Your task to perform on an android device: Open the calendar app, open the side menu, and click the "Day" option Image 0: 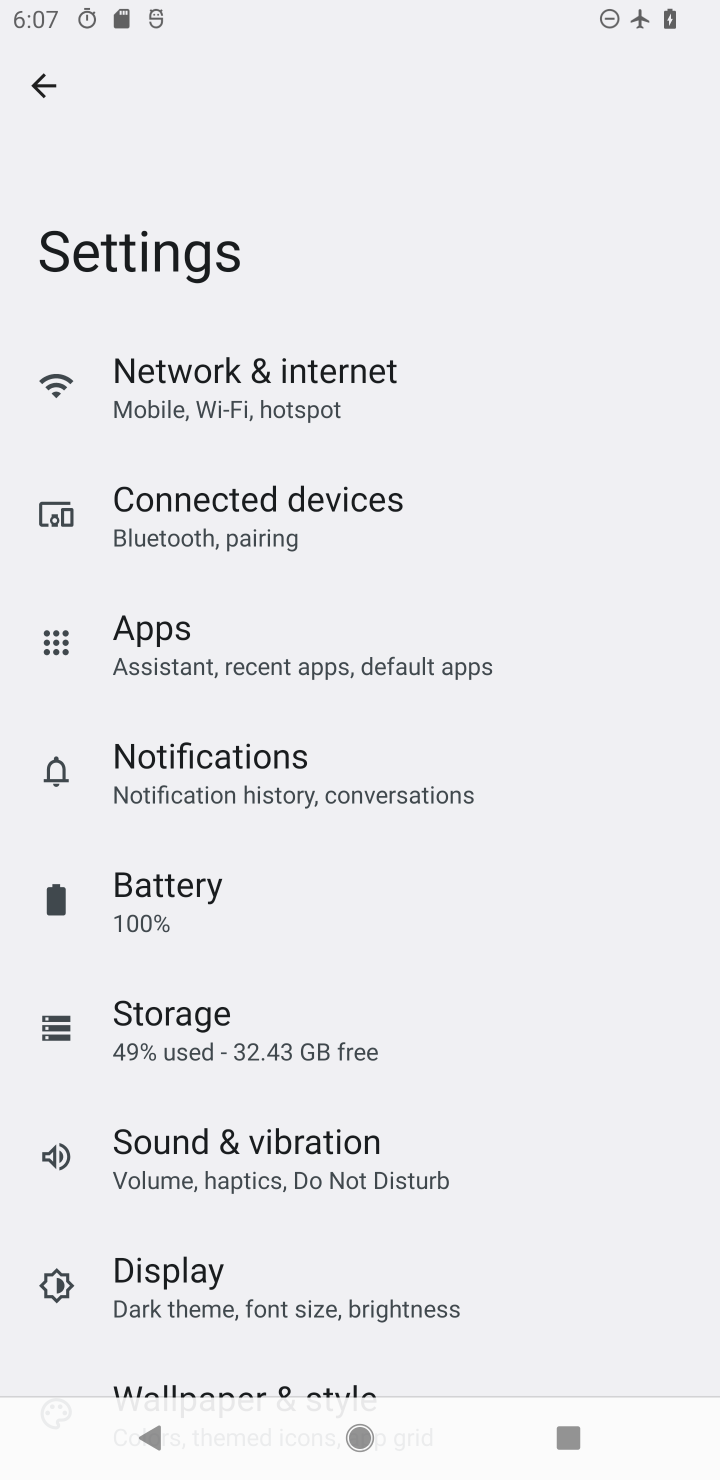
Step 0: press home button
Your task to perform on an android device: Open the calendar app, open the side menu, and click the "Day" option Image 1: 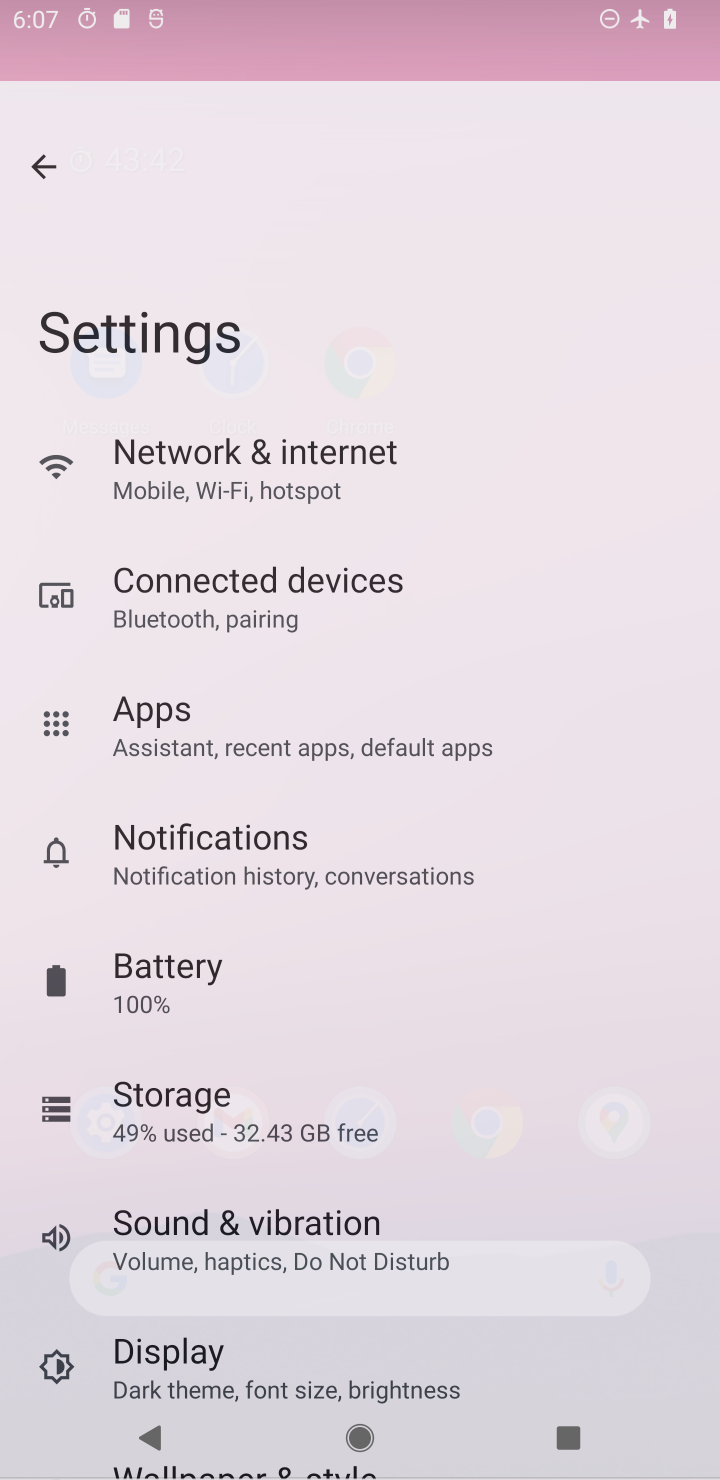
Step 1: drag from (320, 1275) to (531, 233)
Your task to perform on an android device: Open the calendar app, open the side menu, and click the "Day" option Image 2: 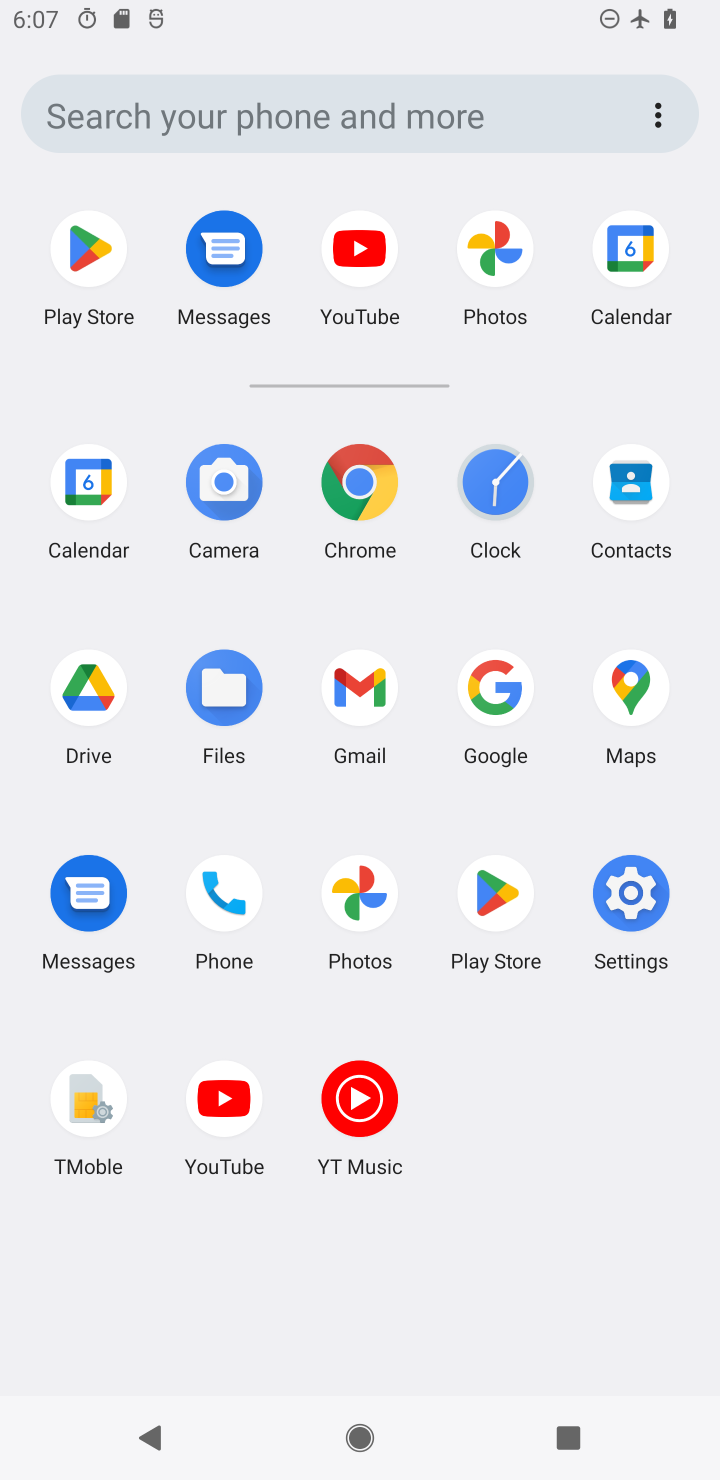
Step 2: click (627, 226)
Your task to perform on an android device: Open the calendar app, open the side menu, and click the "Day" option Image 3: 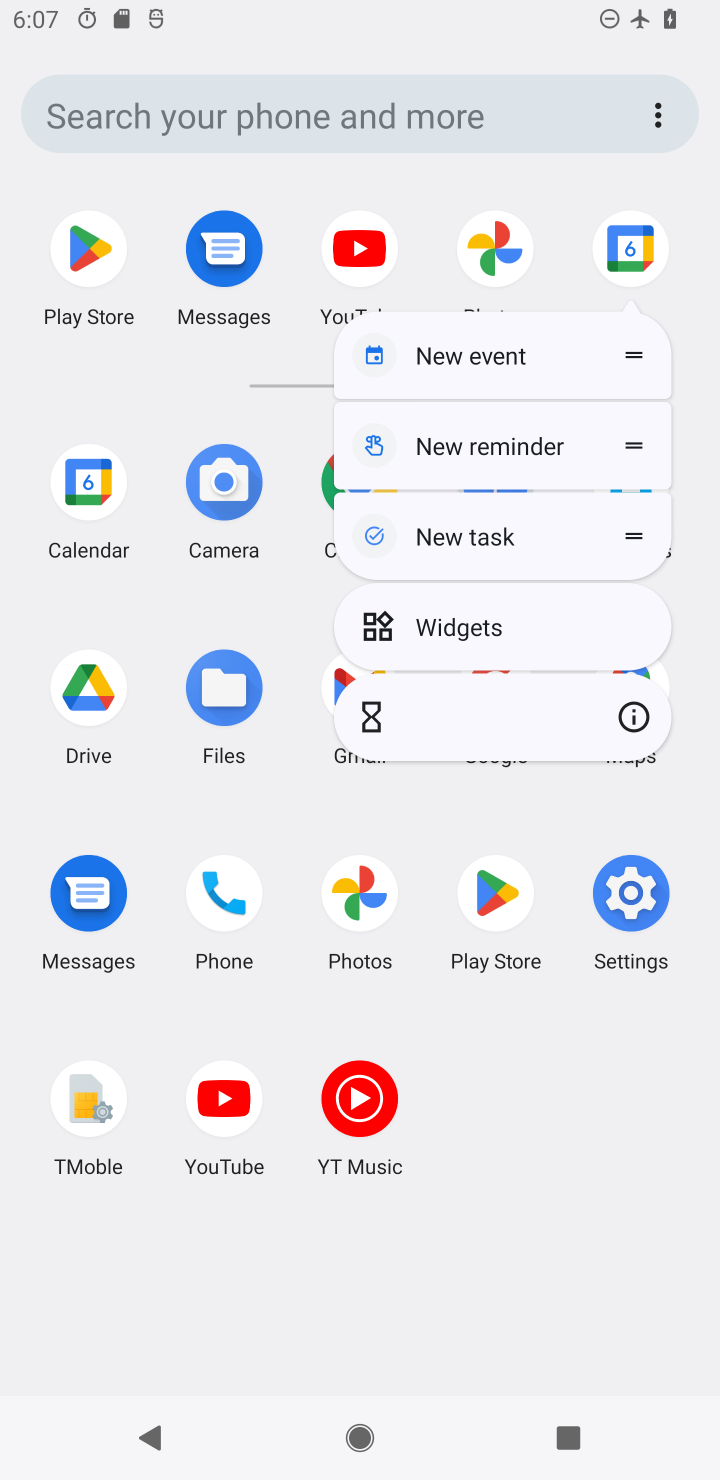
Step 3: click (637, 702)
Your task to perform on an android device: Open the calendar app, open the side menu, and click the "Day" option Image 4: 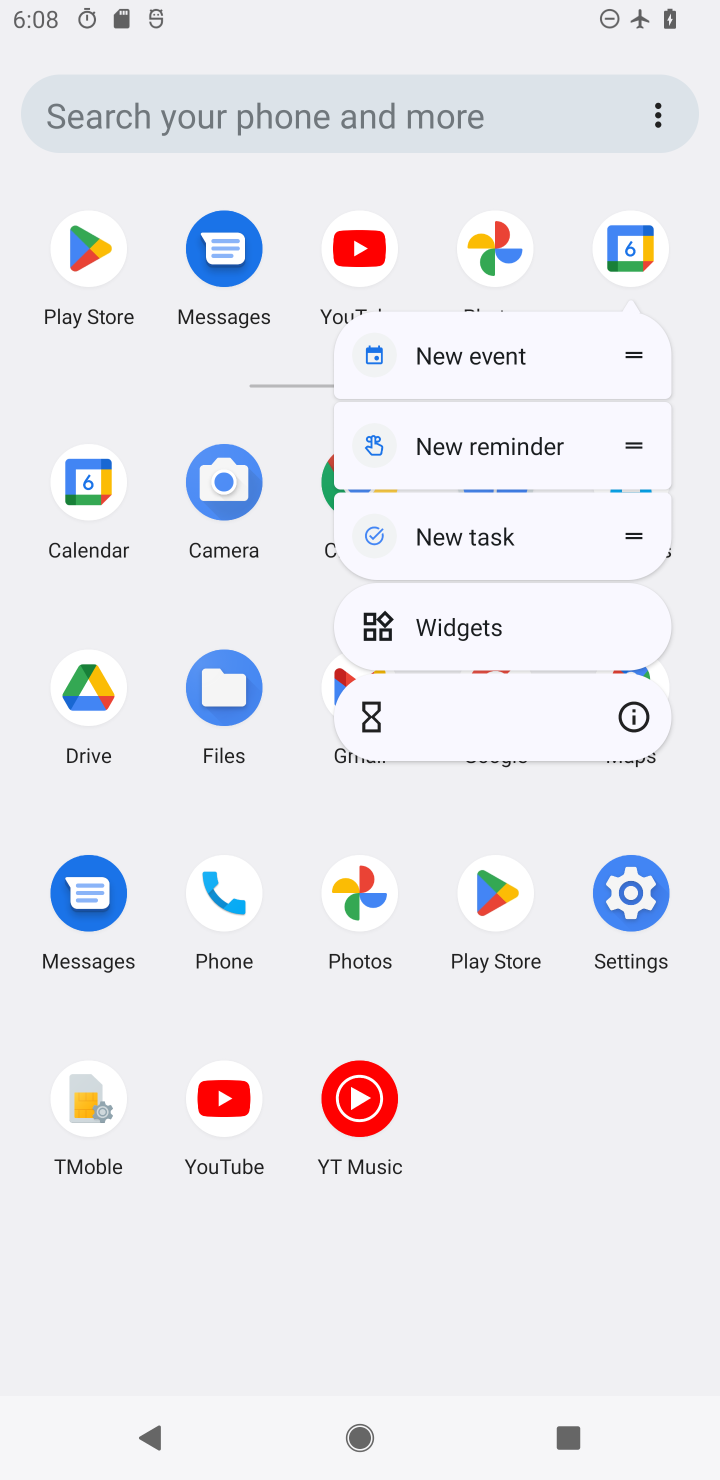
Step 4: click (616, 733)
Your task to perform on an android device: Open the calendar app, open the side menu, and click the "Day" option Image 5: 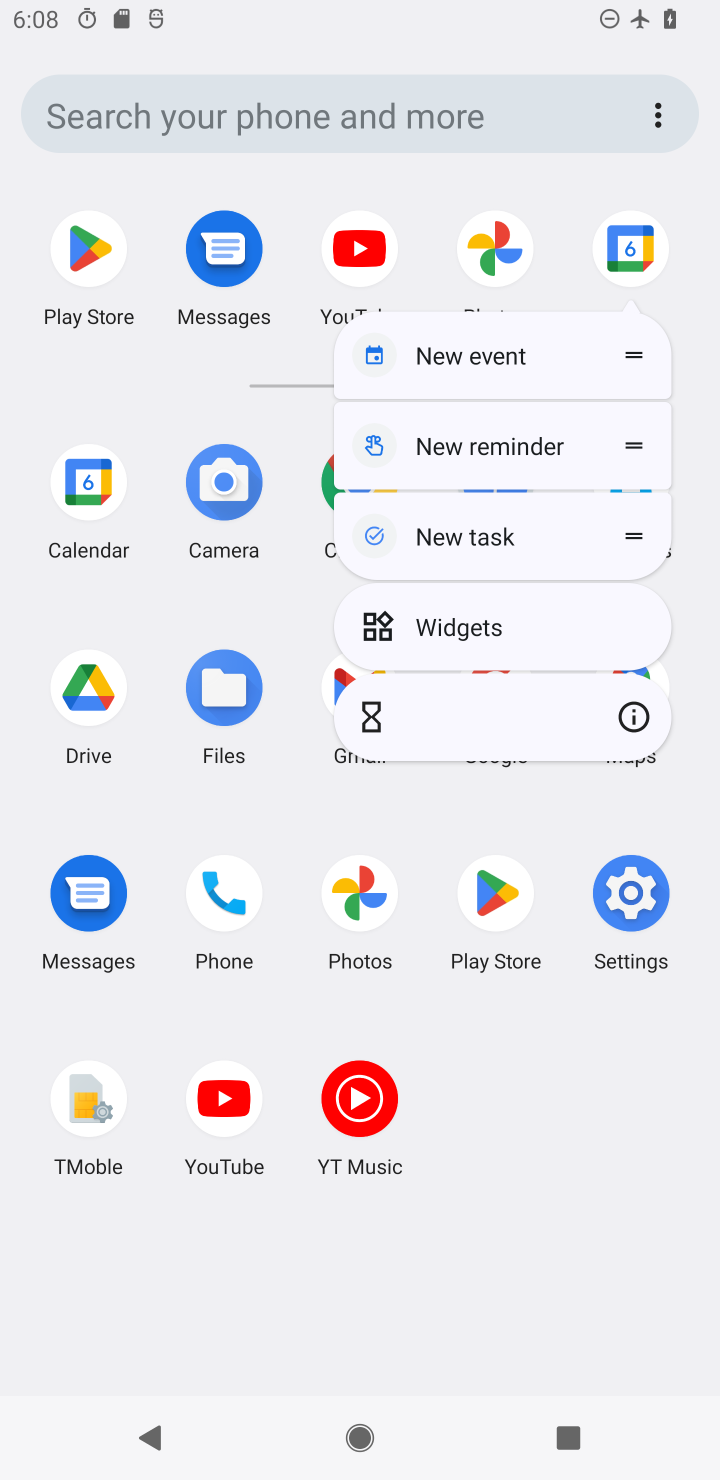
Step 5: click (635, 706)
Your task to perform on an android device: Open the calendar app, open the side menu, and click the "Day" option Image 6: 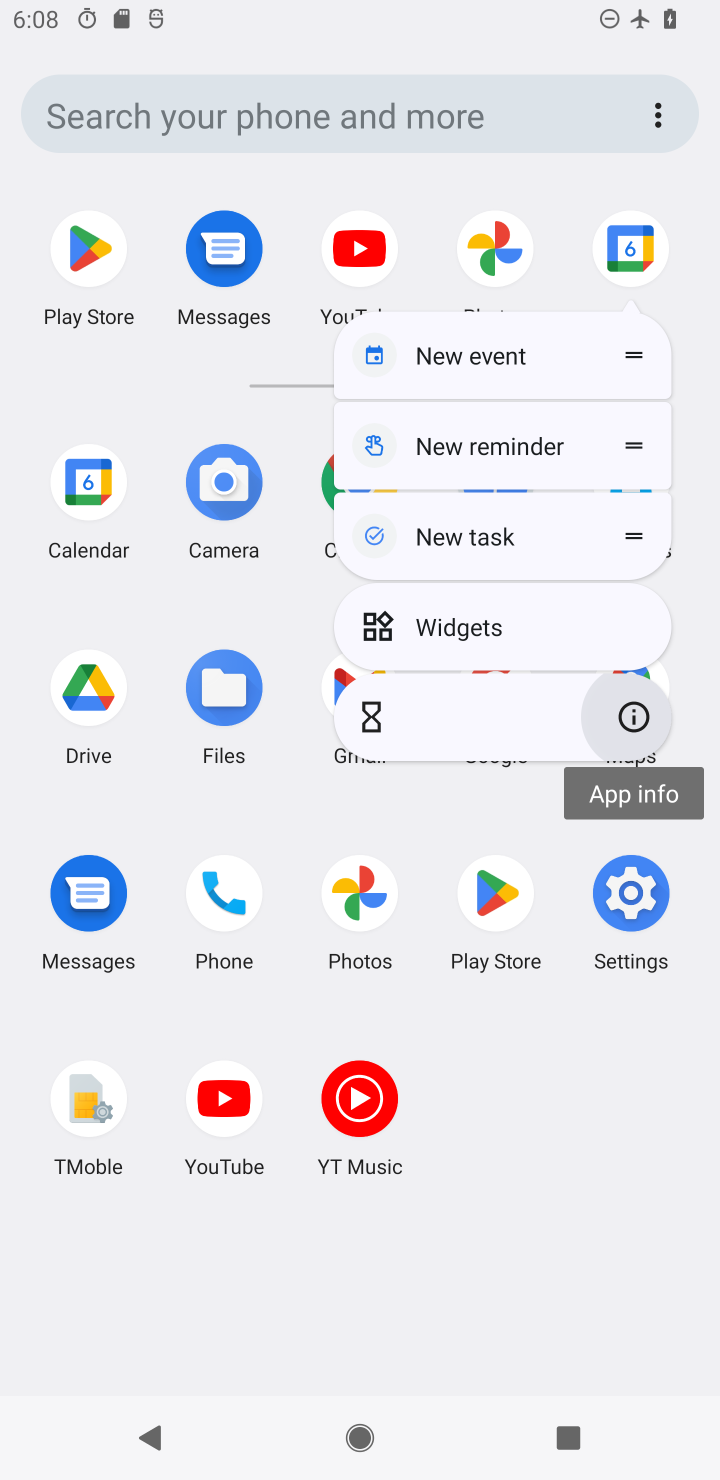
Step 6: click (635, 706)
Your task to perform on an android device: Open the calendar app, open the side menu, and click the "Day" option Image 7: 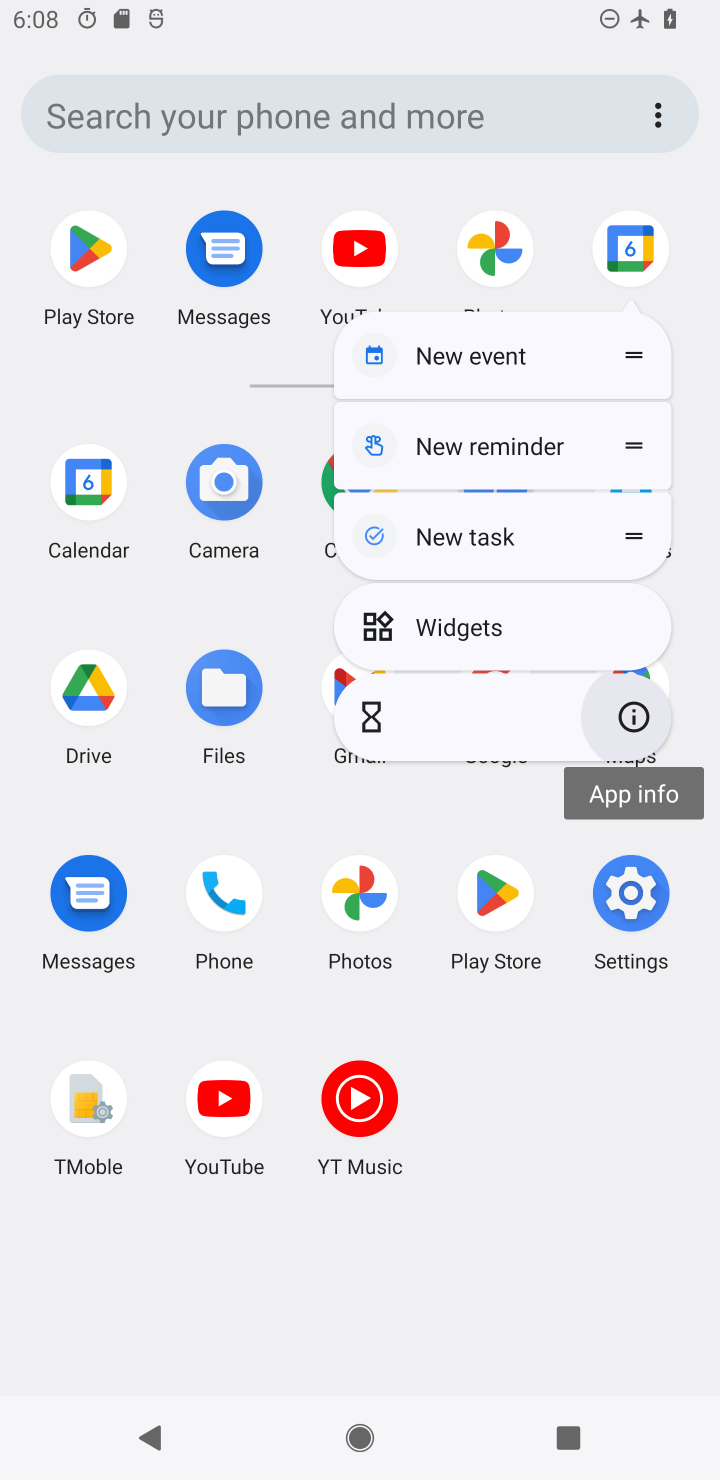
Step 7: click (641, 714)
Your task to perform on an android device: Open the calendar app, open the side menu, and click the "Day" option Image 8: 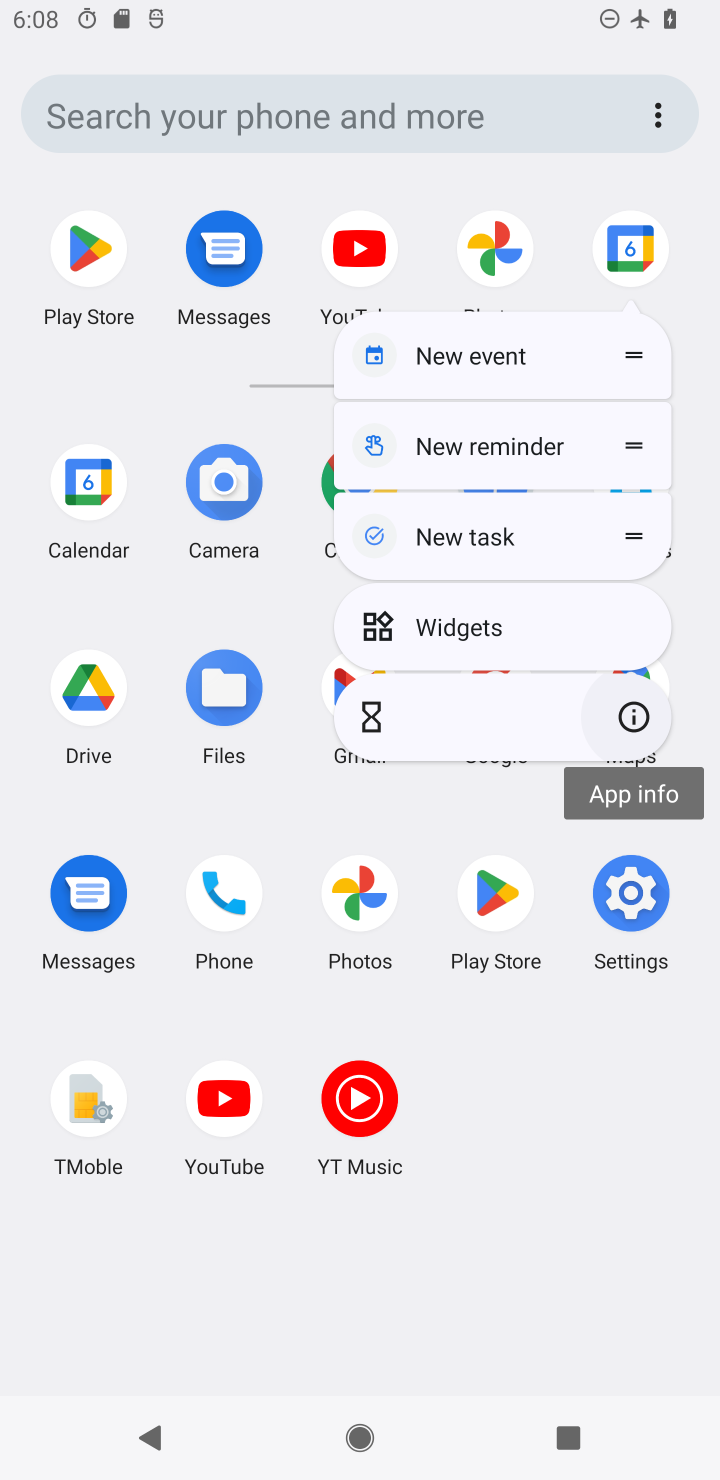
Step 8: click (626, 243)
Your task to perform on an android device: Open the calendar app, open the side menu, and click the "Day" option Image 9: 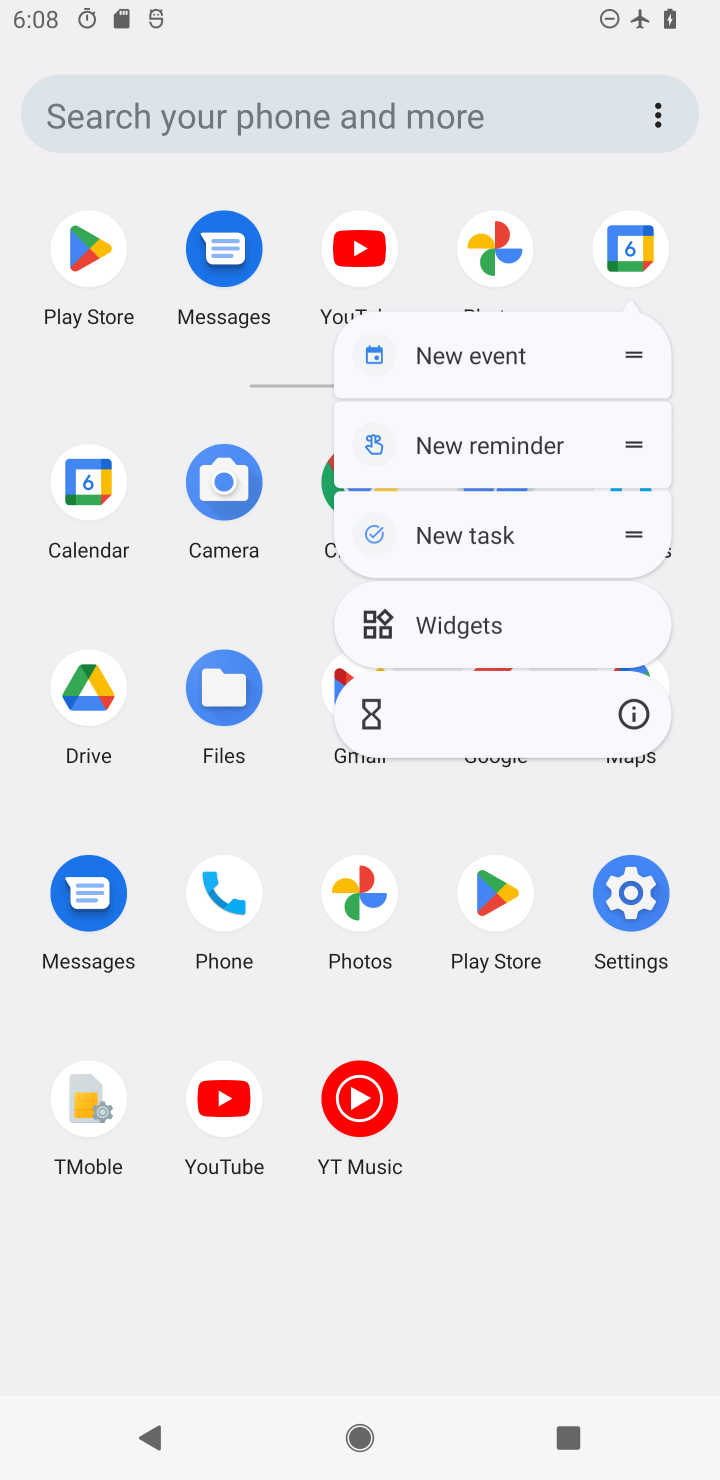
Step 9: click (630, 231)
Your task to perform on an android device: Open the calendar app, open the side menu, and click the "Day" option Image 10: 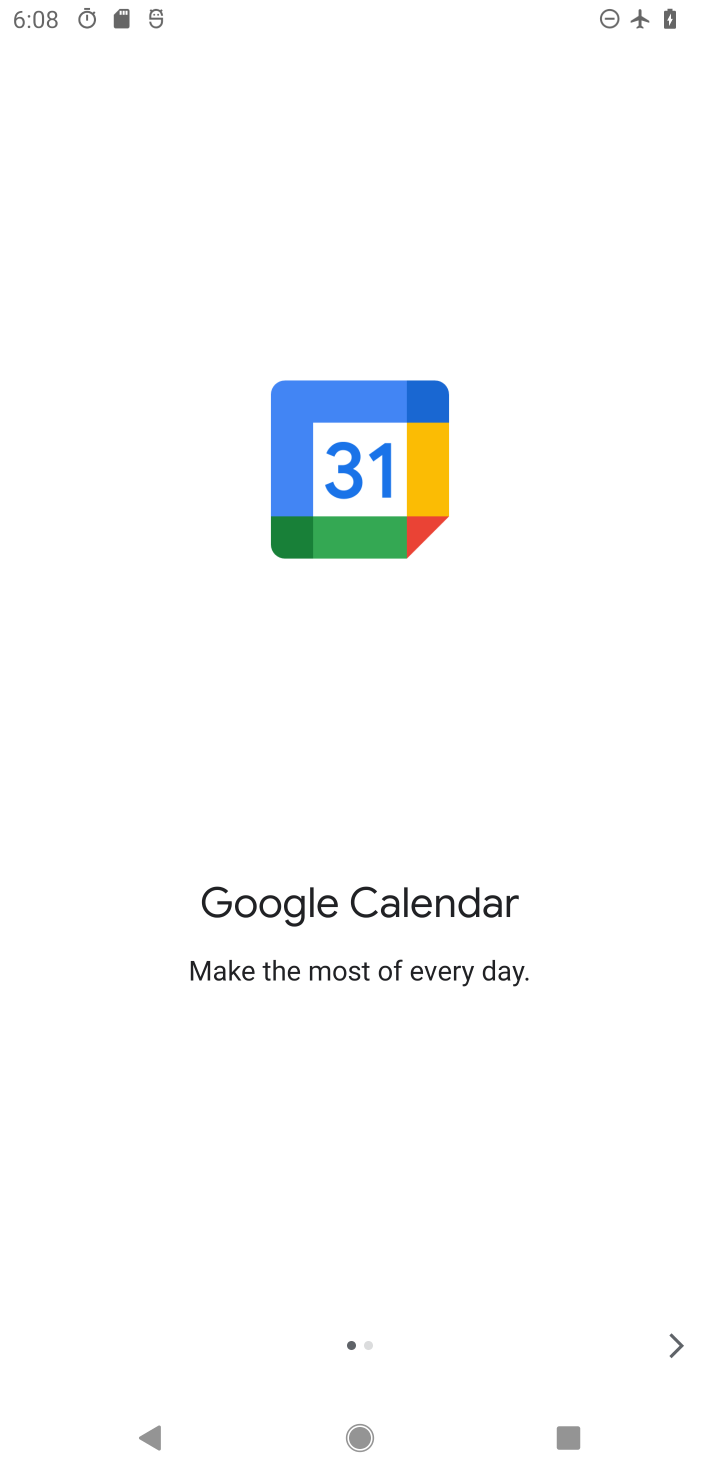
Step 10: click (677, 1339)
Your task to perform on an android device: Open the calendar app, open the side menu, and click the "Day" option Image 11: 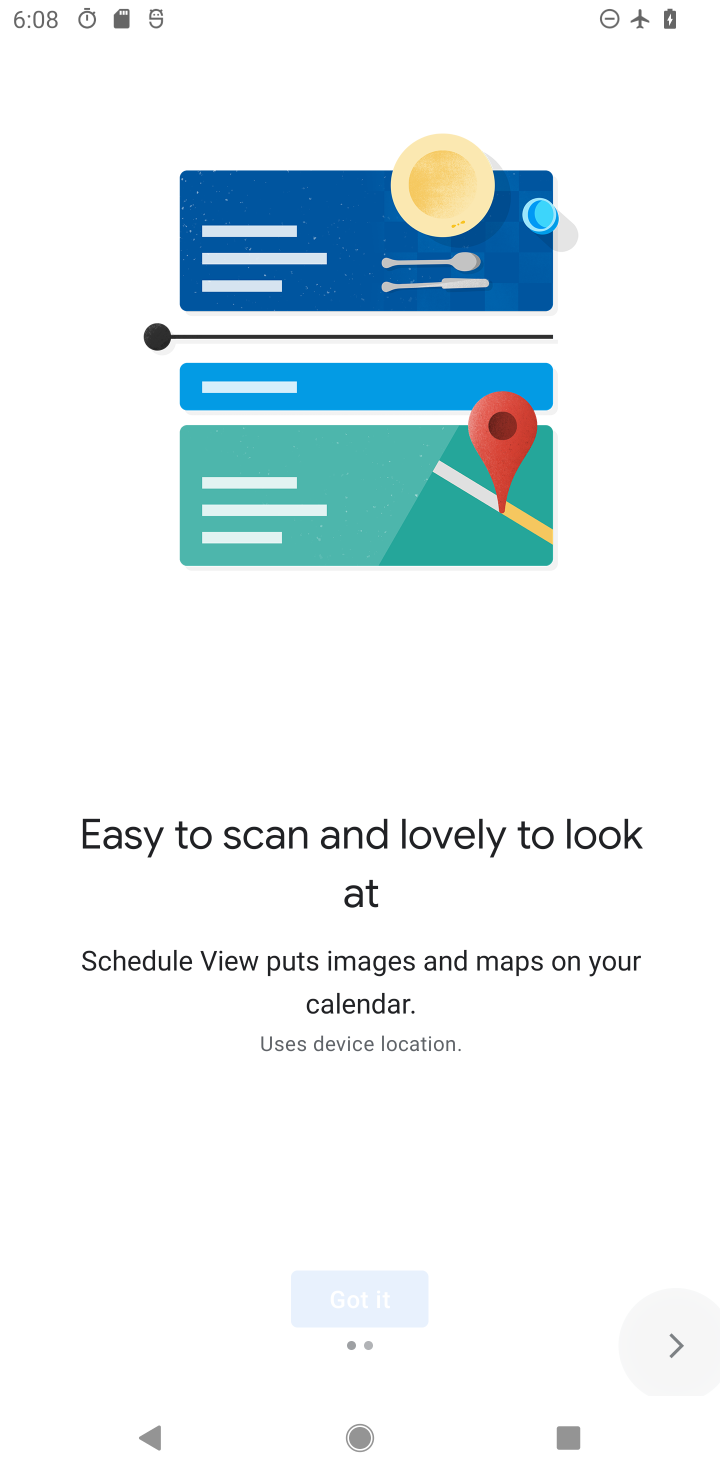
Step 11: click (677, 1337)
Your task to perform on an android device: Open the calendar app, open the side menu, and click the "Day" option Image 12: 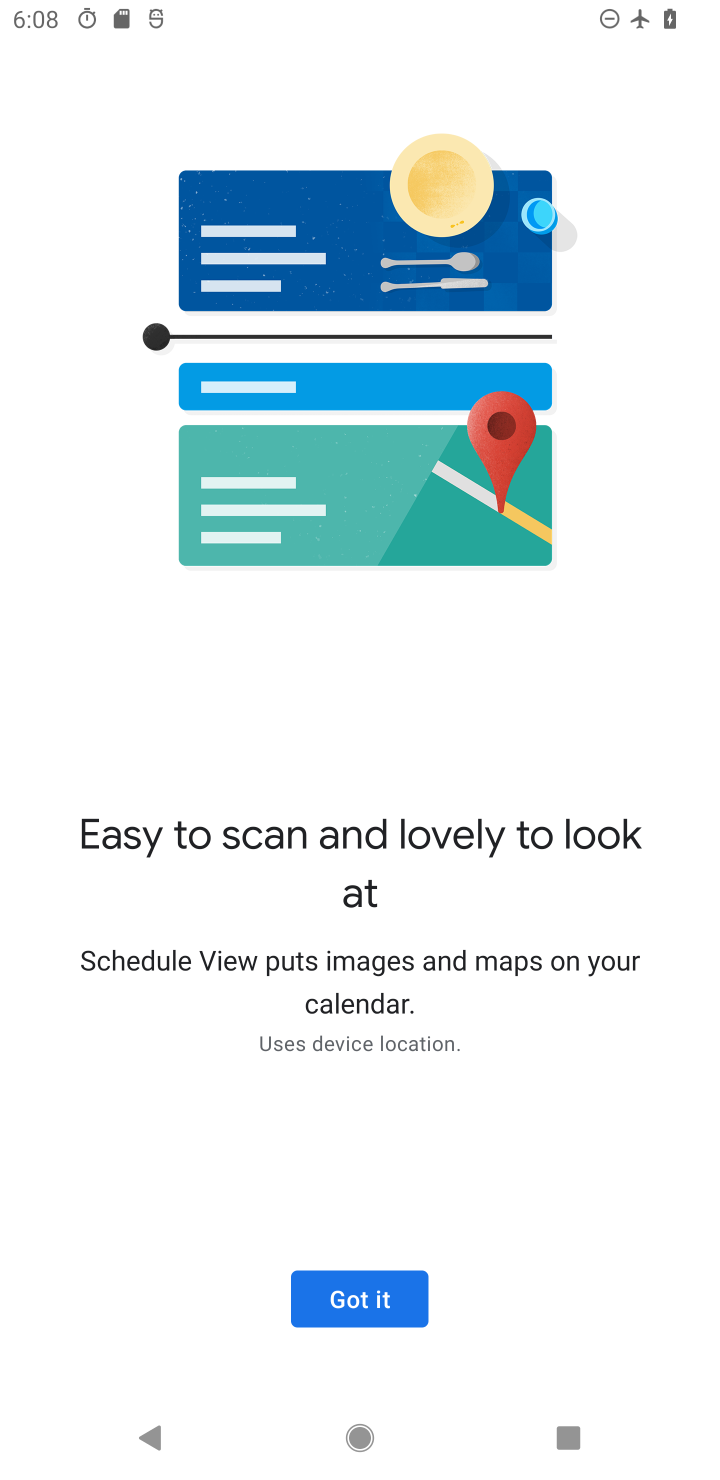
Step 12: click (366, 1323)
Your task to perform on an android device: Open the calendar app, open the side menu, and click the "Day" option Image 13: 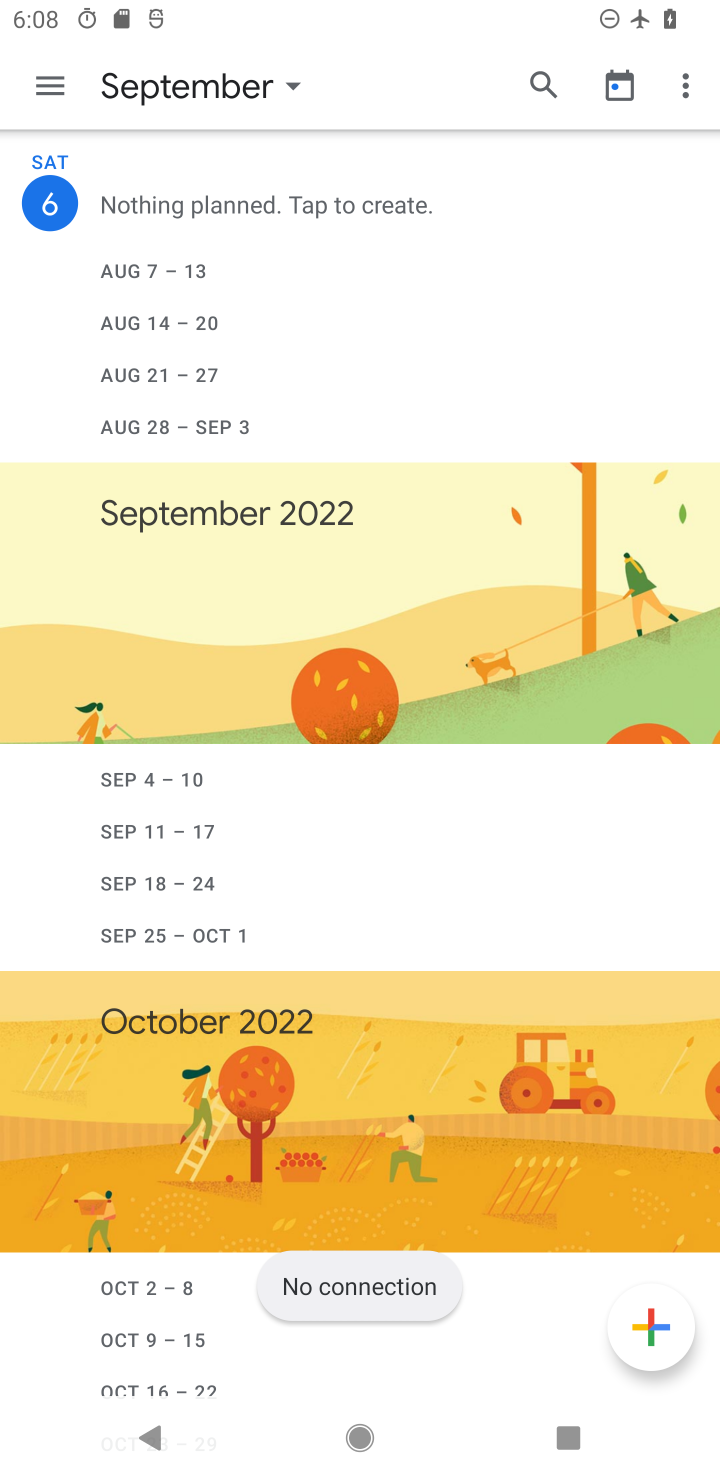
Step 13: click (49, 67)
Your task to perform on an android device: Open the calendar app, open the side menu, and click the "Day" option Image 14: 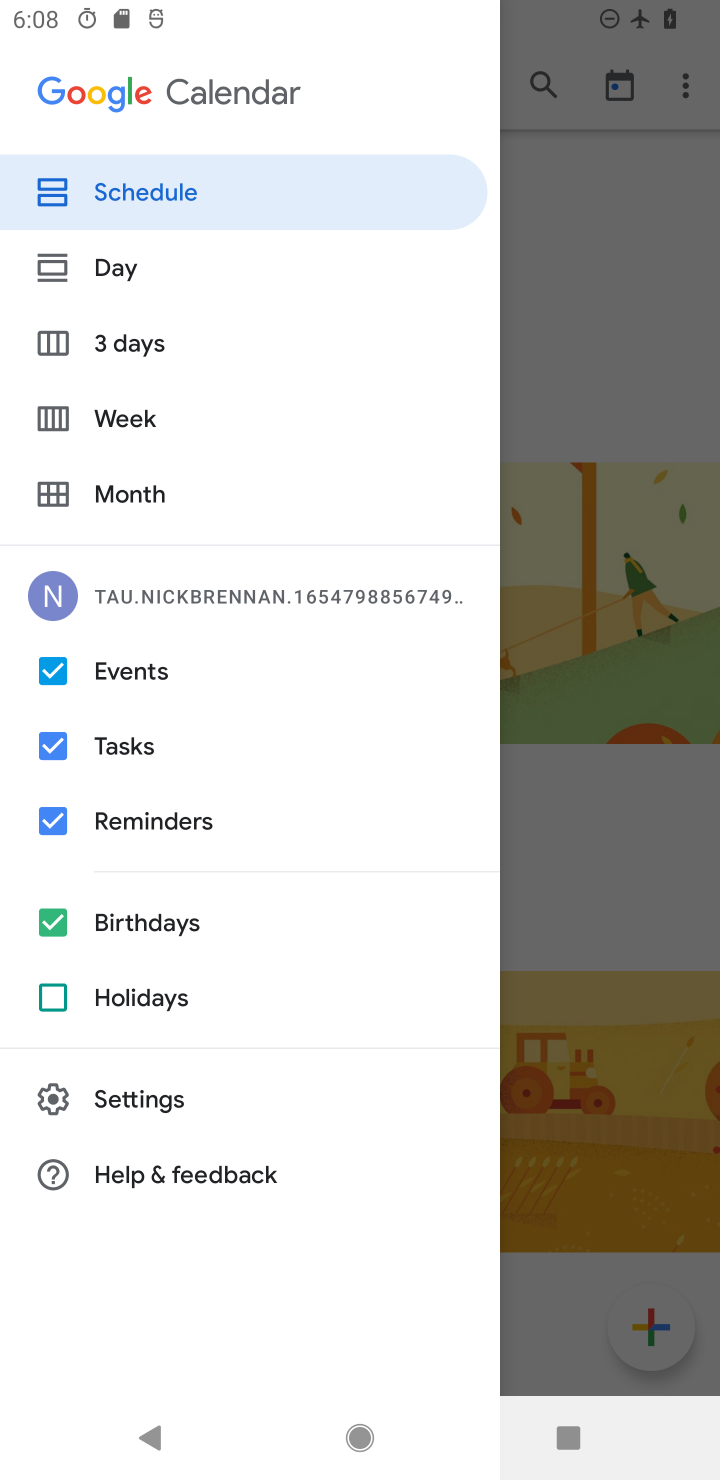
Step 14: click (180, 270)
Your task to perform on an android device: Open the calendar app, open the side menu, and click the "Day" option Image 15: 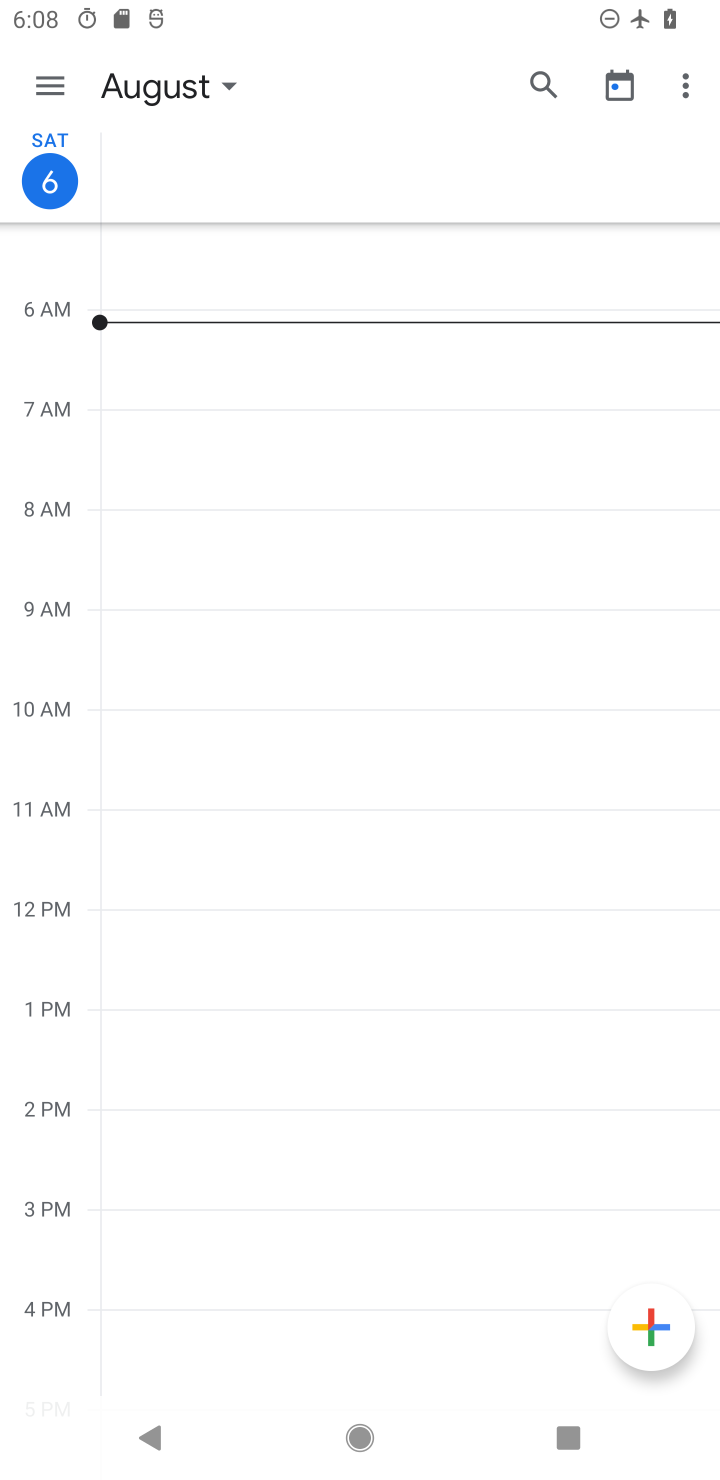
Step 15: click (35, 91)
Your task to perform on an android device: Open the calendar app, open the side menu, and click the "Day" option Image 16: 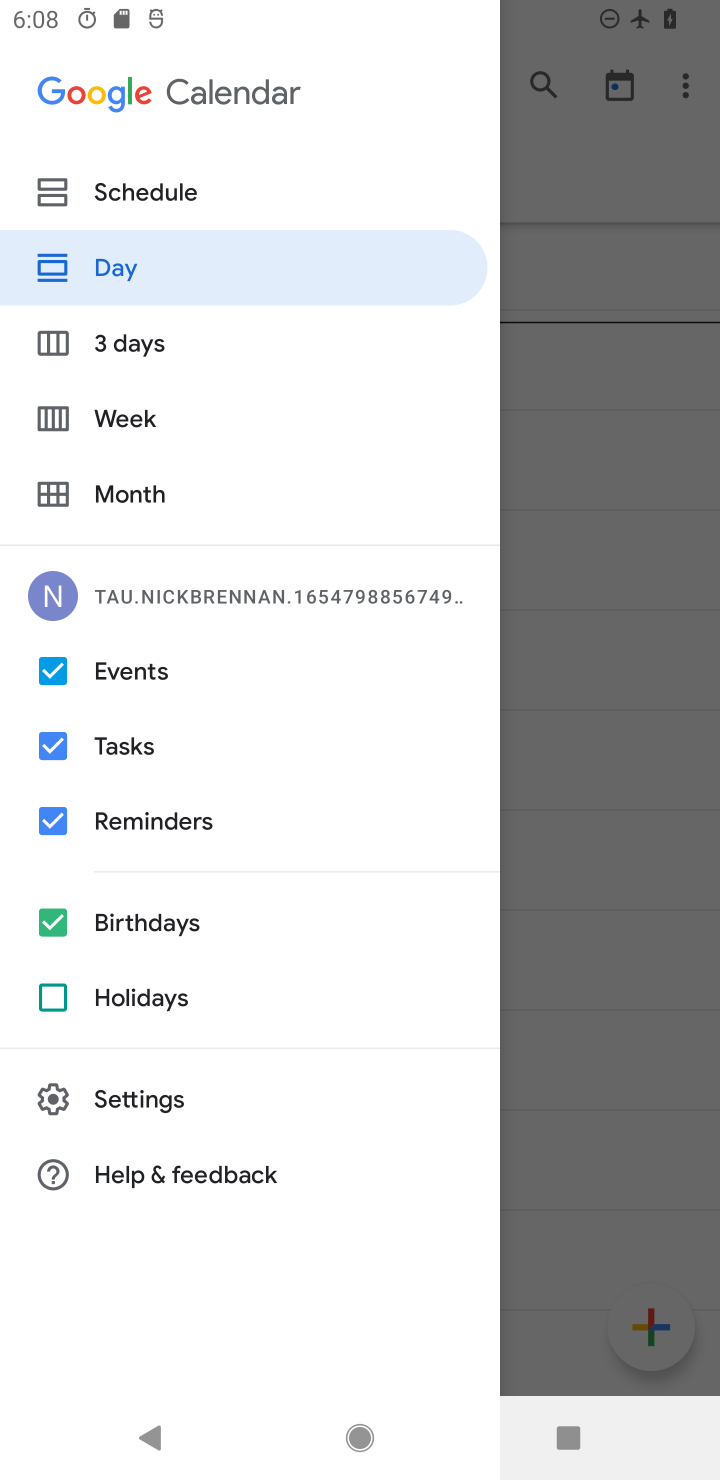
Step 16: click (150, 263)
Your task to perform on an android device: Open the calendar app, open the side menu, and click the "Day" option Image 17: 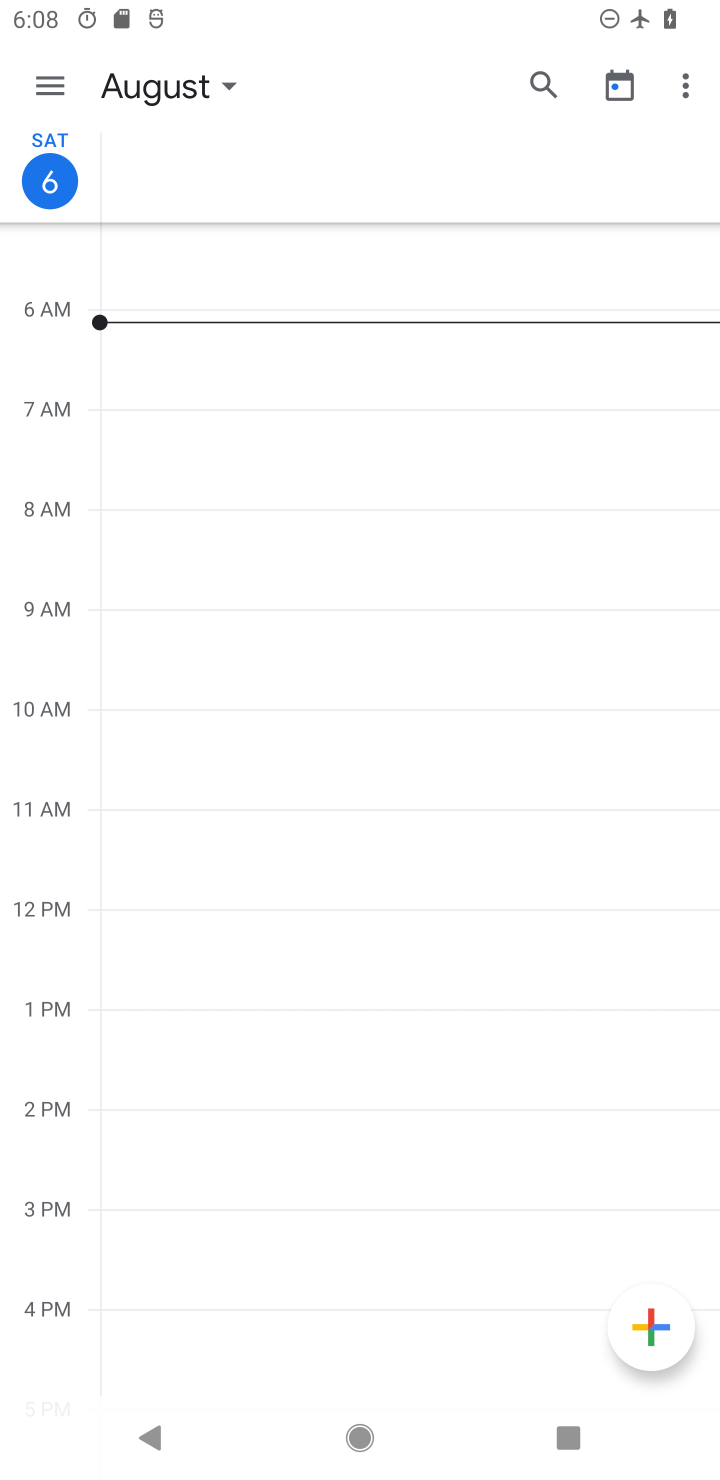
Step 17: task complete